Your task to perform on an android device: Open maps Image 0: 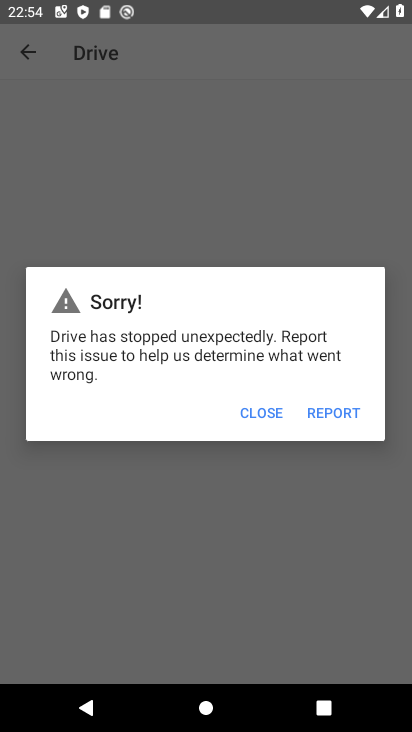
Step 0: press home button
Your task to perform on an android device: Open maps Image 1: 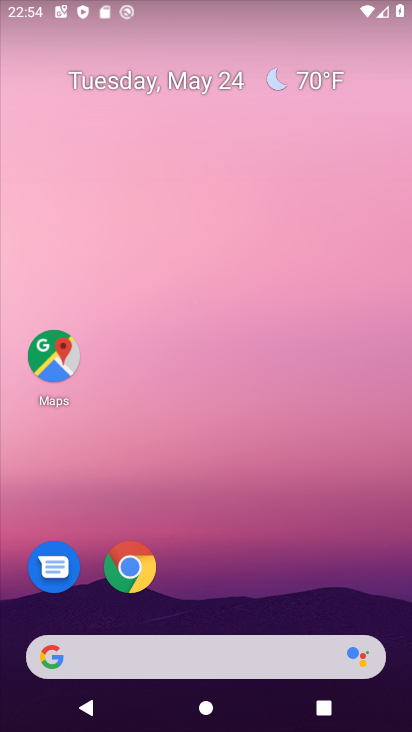
Step 1: click (48, 359)
Your task to perform on an android device: Open maps Image 2: 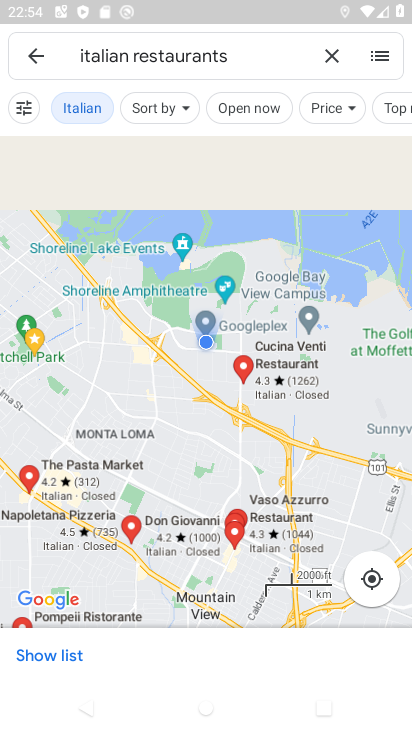
Step 2: task complete